Your task to perform on an android device: turn off priority inbox in the gmail app Image 0: 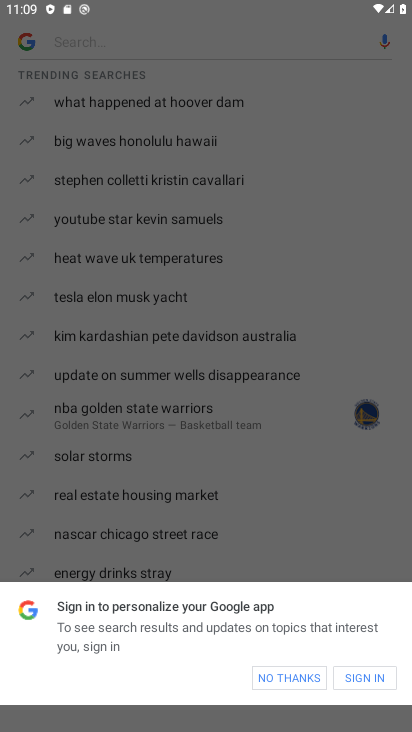
Step 0: press home button
Your task to perform on an android device: turn off priority inbox in the gmail app Image 1: 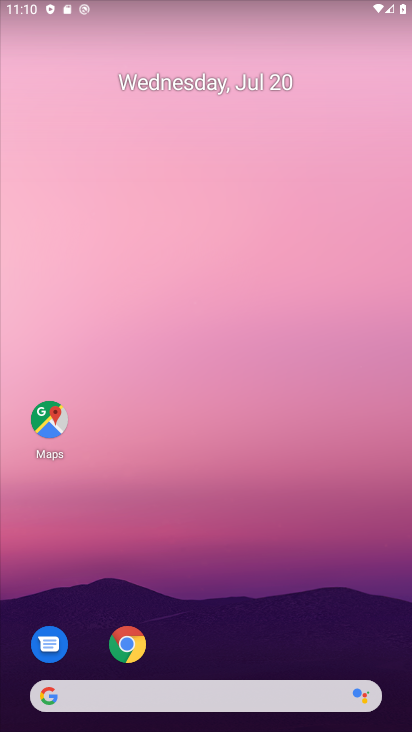
Step 1: drag from (93, 307) to (101, 86)
Your task to perform on an android device: turn off priority inbox in the gmail app Image 2: 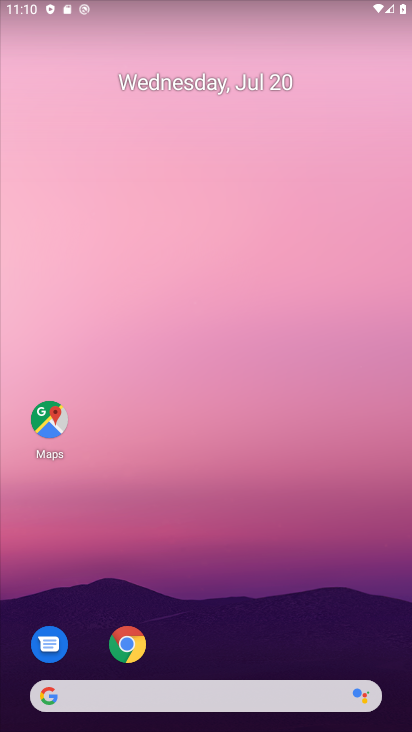
Step 2: drag from (218, 710) to (193, 42)
Your task to perform on an android device: turn off priority inbox in the gmail app Image 3: 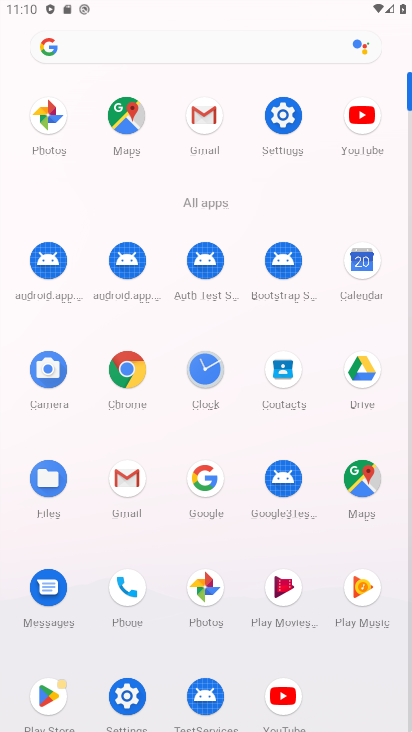
Step 3: click (211, 109)
Your task to perform on an android device: turn off priority inbox in the gmail app Image 4: 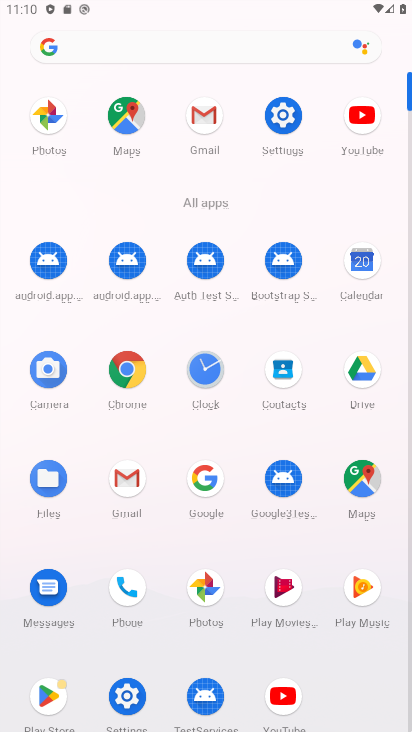
Step 4: click (211, 109)
Your task to perform on an android device: turn off priority inbox in the gmail app Image 5: 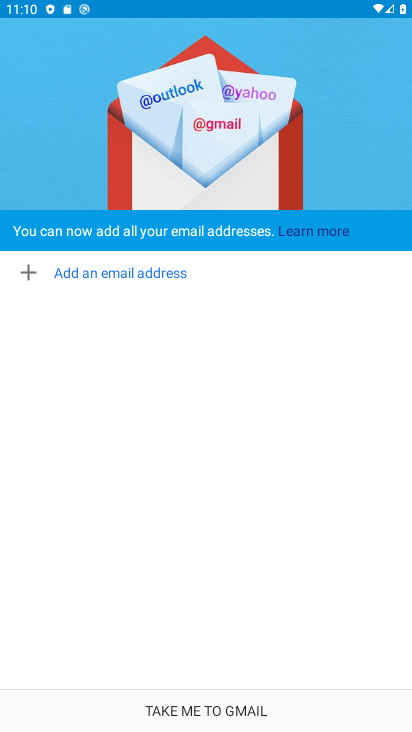
Step 5: click (199, 711)
Your task to perform on an android device: turn off priority inbox in the gmail app Image 6: 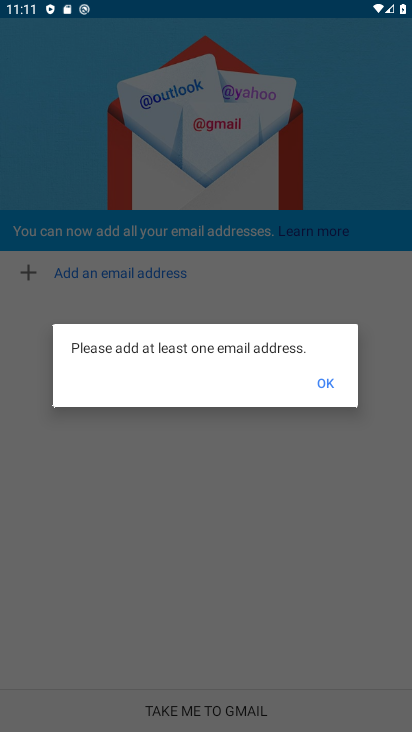
Step 6: click (324, 384)
Your task to perform on an android device: turn off priority inbox in the gmail app Image 7: 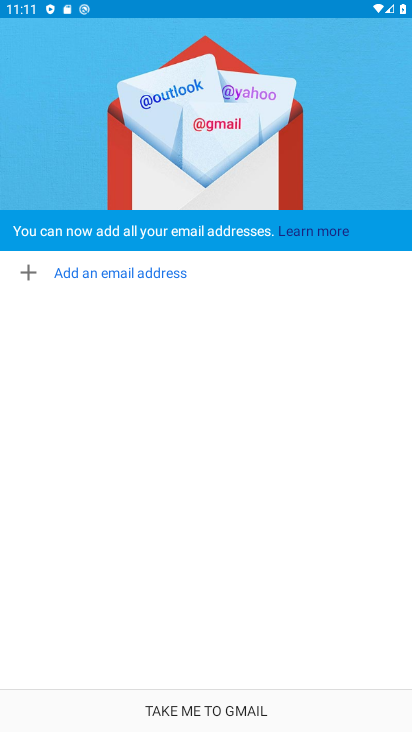
Step 7: click (167, 267)
Your task to perform on an android device: turn off priority inbox in the gmail app Image 8: 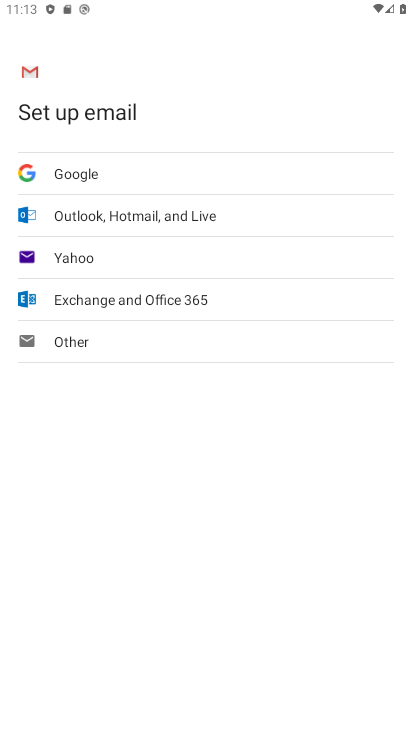
Step 8: press home button
Your task to perform on an android device: turn off priority inbox in the gmail app Image 9: 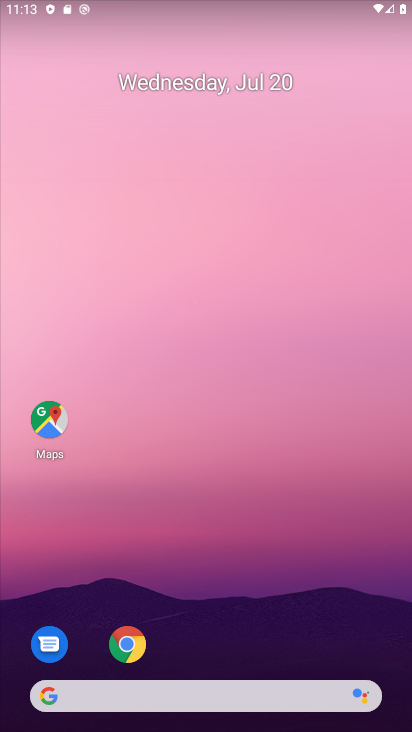
Step 9: drag from (236, 476) to (208, 23)
Your task to perform on an android device: turn off priority inbox in the gmail app Image 10: 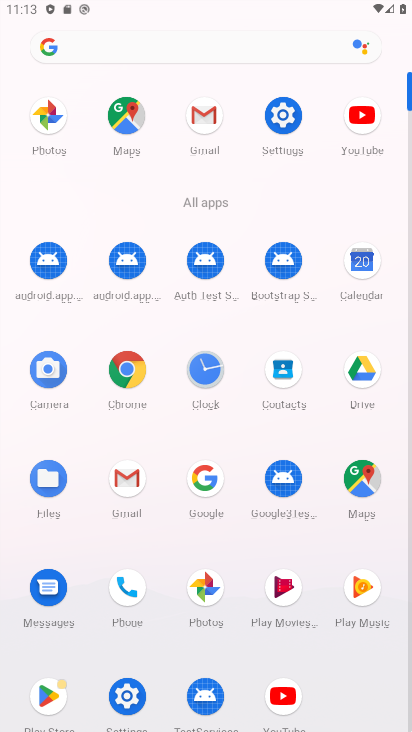
Step 10: click (195, 121)
Your task to perform on an android device: turn off priority inbox in the gmail app Image 11: 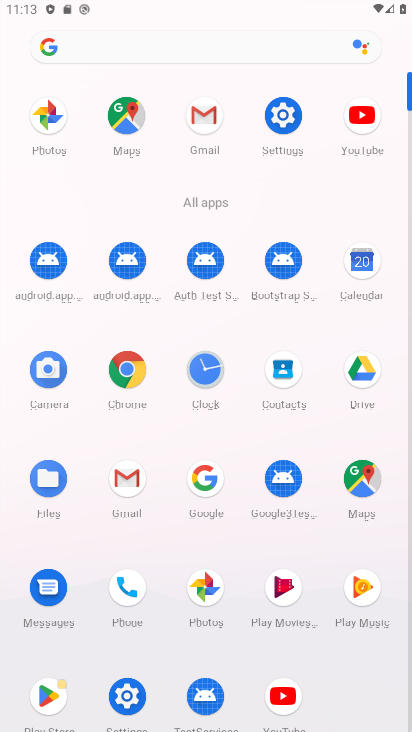
Step 11: click (195, 121)
Your task to perform on an android device: turn off priority inbox in the gmail app Image 12: 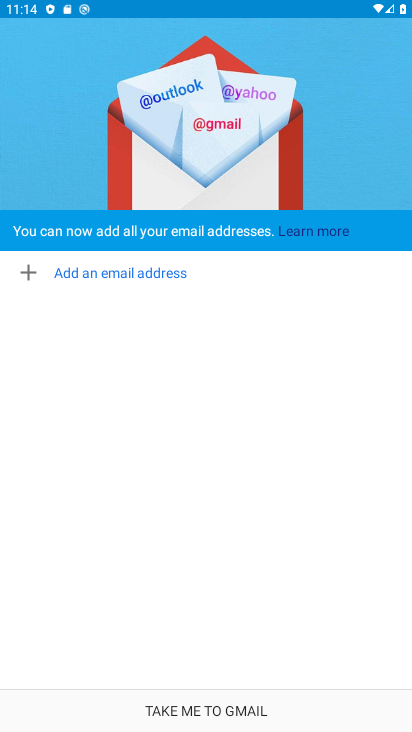
Step 12: task complete